Your task to perform on an android device: Open settings Image 0: 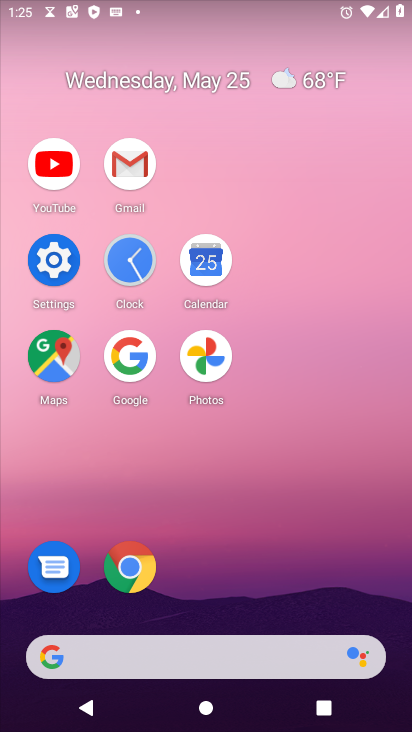
Step 0: click (39, 248)
Your task to perform on an android device: Open settings Image 1: 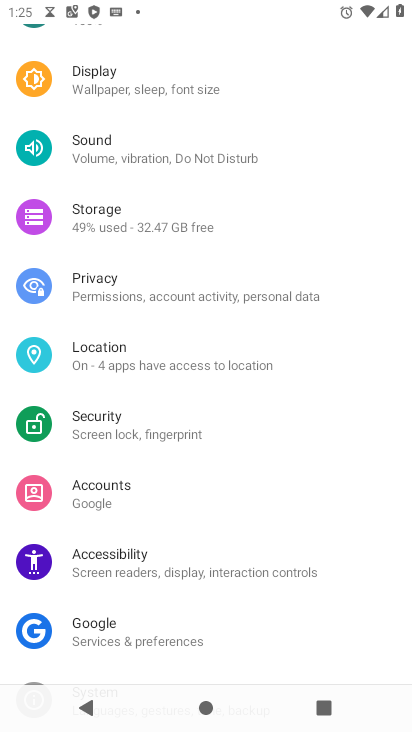
Step 1: task complete